Your task to perform on an android device: toggle javascript in the chrome app Image 0: 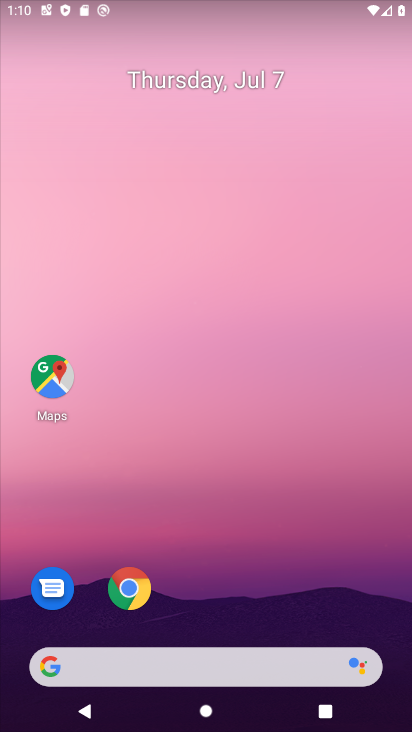
Step 0: drag from (243, 555) to (313, 234)
Your task to perform on an android device: toggle javascript in the chrome app Image 1: 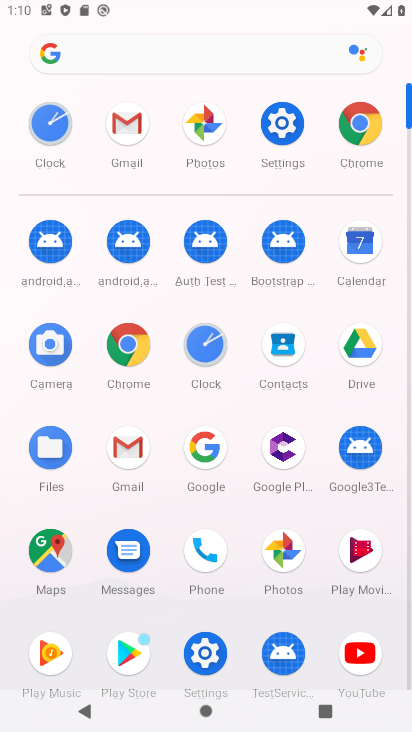
Step 1: click (131, 338)
Your task to perform on an android device: toggle javascript in the chrome app Image 2: 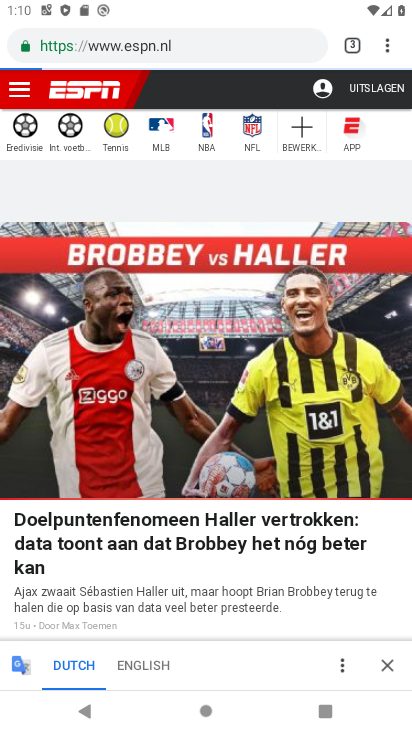
Step 2: click (396, 43)
Your task to perform on an android device: toggle javascript in the chrome app Image 3: 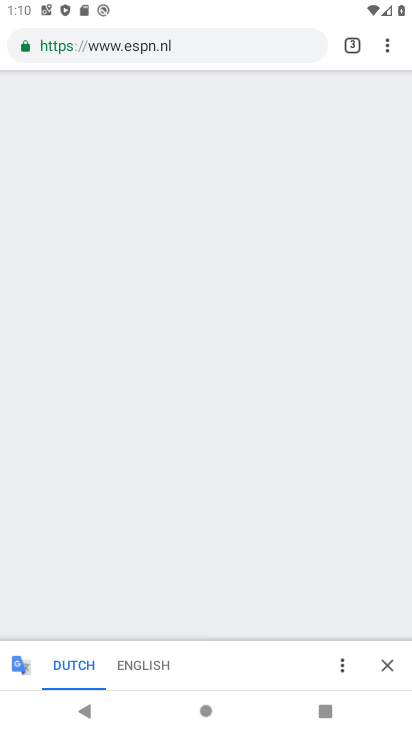
Step 3: click (383, 41)
Your task to perform on an android device: toggle javascript in the chrome app Image 4: 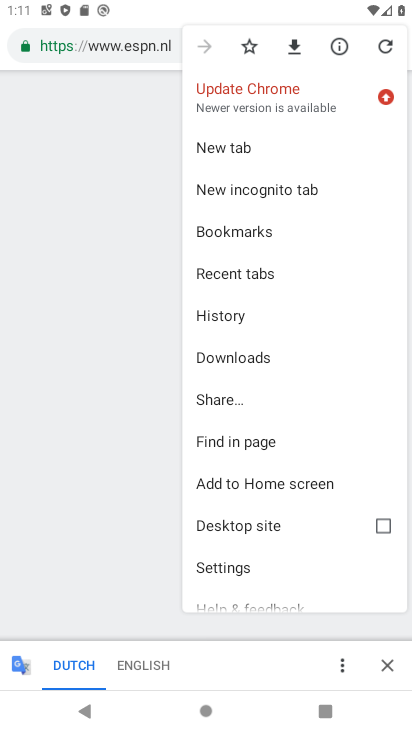
Step 4: click (239, 573)
Your task to perform on an android device: toggle javascript in the chrome app Image 5: 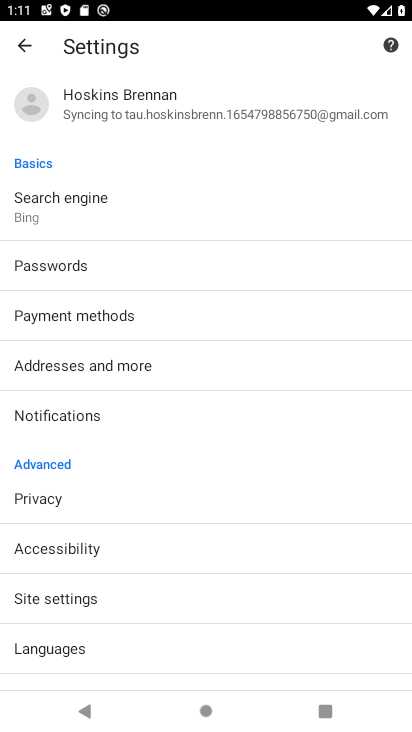
Step 5: drag from (87, 625) to (106, 315)
Your task to perform on an android device: toggle javascript in the chrome app Image 6: 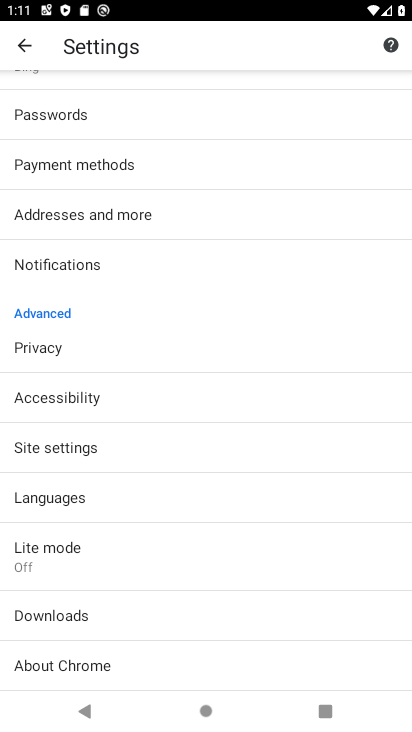
Step 6: click (97, 447)
Your task to perform on an android device: toggle javascript in the chrome app Image 7: 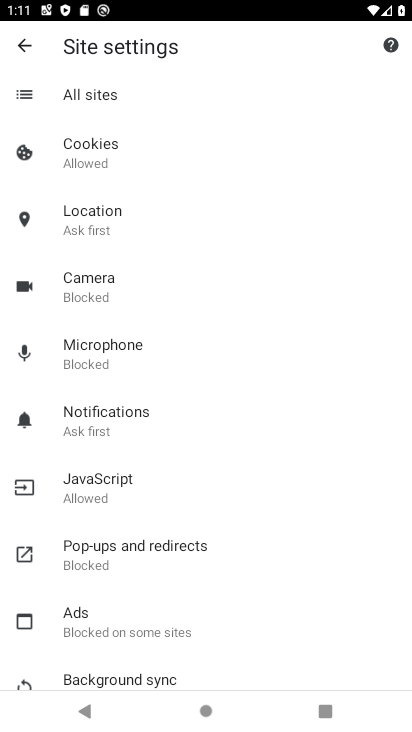
Step 7: click (134, 481)
Your task to perform on an android device: toggle javascript in the chrome app Image 8: 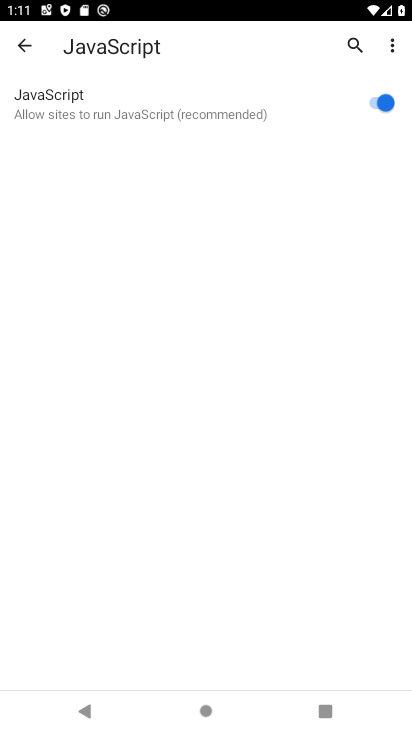
Step 8: click (380, 92)
Your task to perform on an android device: toggle javascript in the chrome app Image 9: 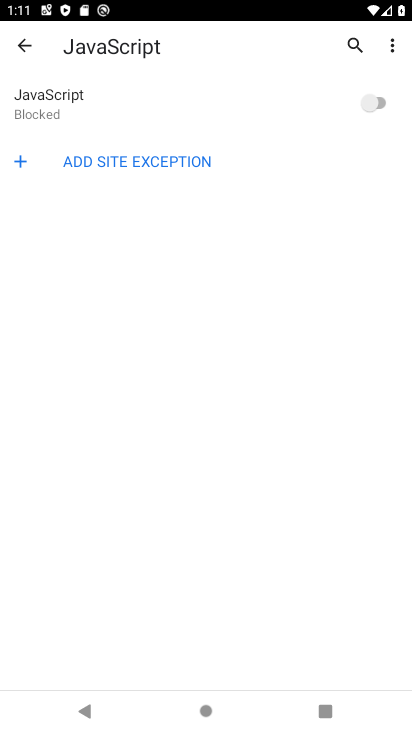
Step 9: task complete